Your task to perform on an android device: turn pop-ups on in chrome Image 0: 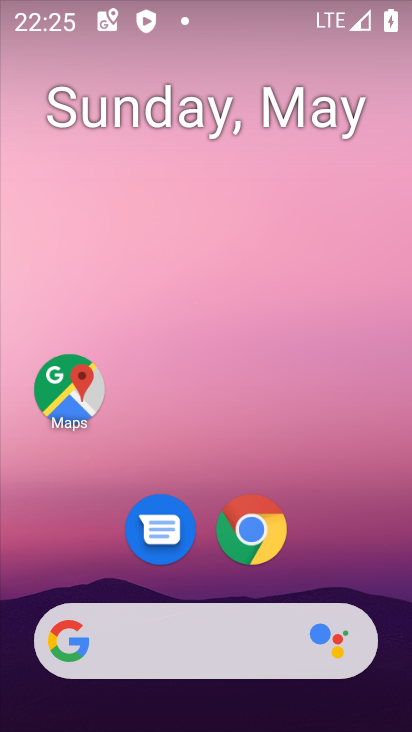
Step 0: click (306, 520)
Your task to perform on an android device: turn pop-ups on in chrome Image 1: 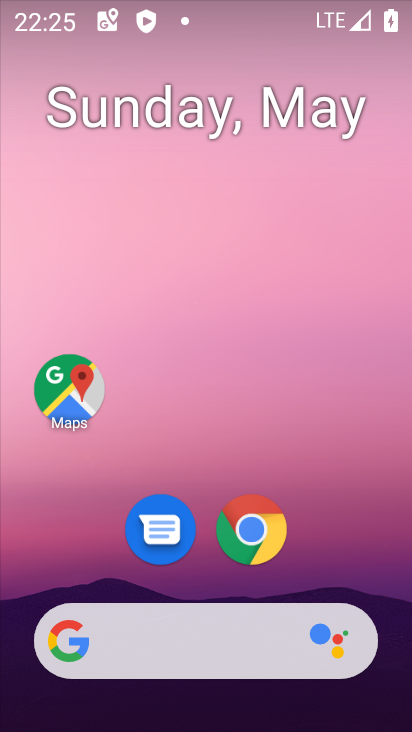
Step 1: click (241, 525)
Your task to perform on an android device: turn pop-ups on in chrome Image 2: 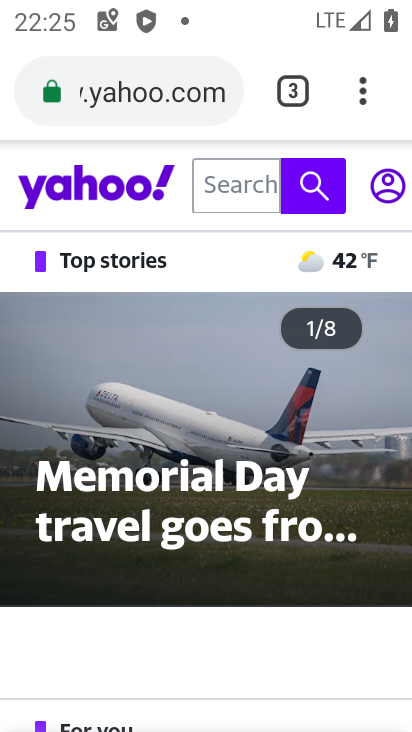
Step 2: click (371, 87)
Your task to perform on an android device: turn pop-ups on in chrome Image 3: 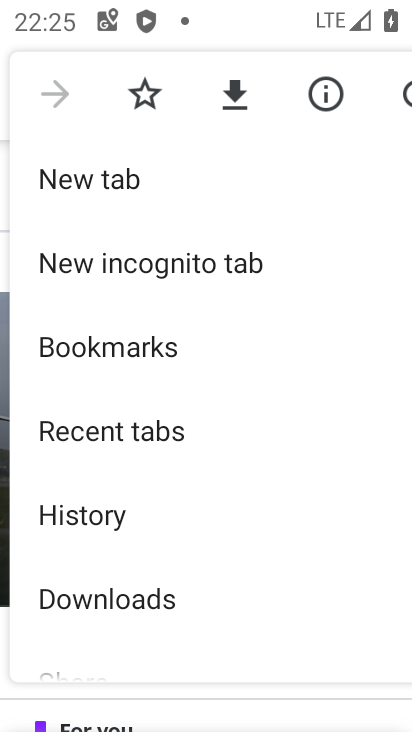
Step 3: drag from (216, 541) to (211, 327)
Your task to perform on an android device: turn pop-ups on in chrome Image 4: 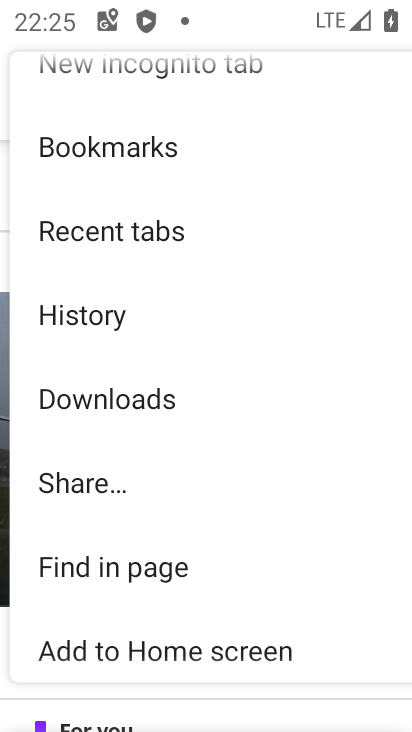
Step 4: drag from (183, 626) to (187, 286)
Your task to perform on an android device: turn pop-ups on in chrome Image 5: 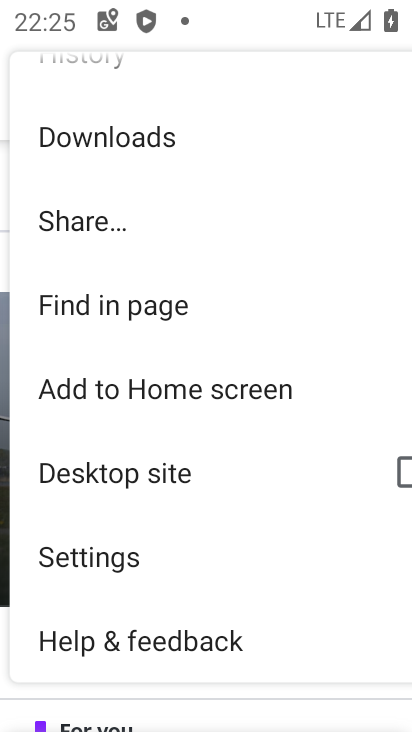
Step 5: click (171, 553)
Your task to perform on an android device: turn pop-ups on in chrome Image 6: 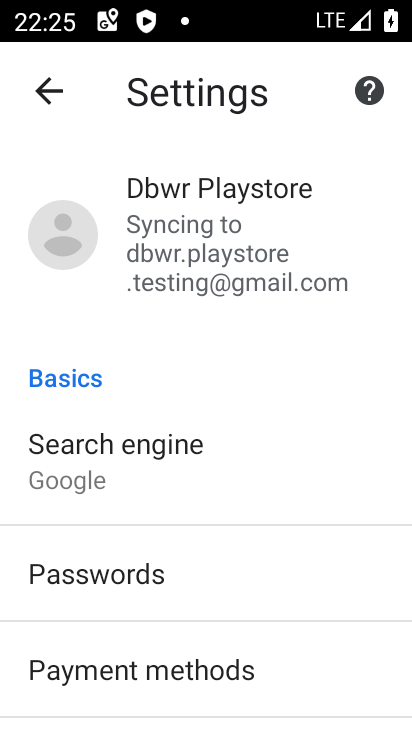
Step 6: drag from (209, 559) to (214, 199)
Your task to perform on an android device: turn pop-ups on in chrome Image 7: 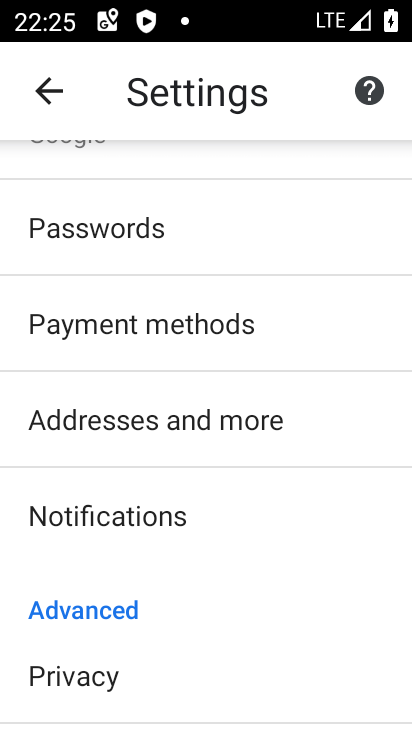
Step 7: drag from (170, 648) to (190, 307)
Your task to perform on an android device: turn pop-ups on in chrome Image 8: 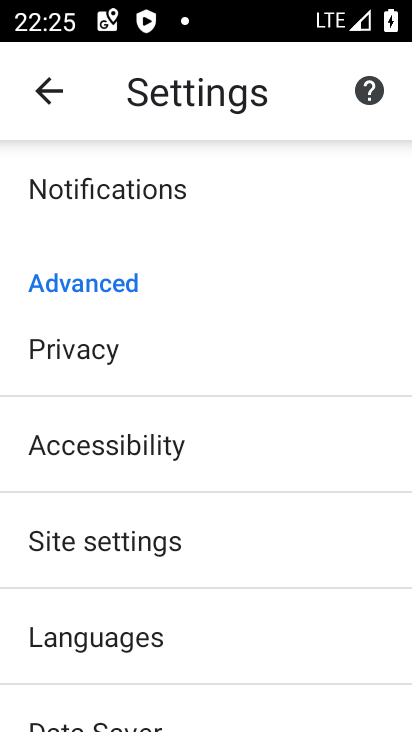
Step 8: drag from (160, 371) to (208, 89)
Your task to perform on an android device: turn pop-ups on in chrome Image 9: 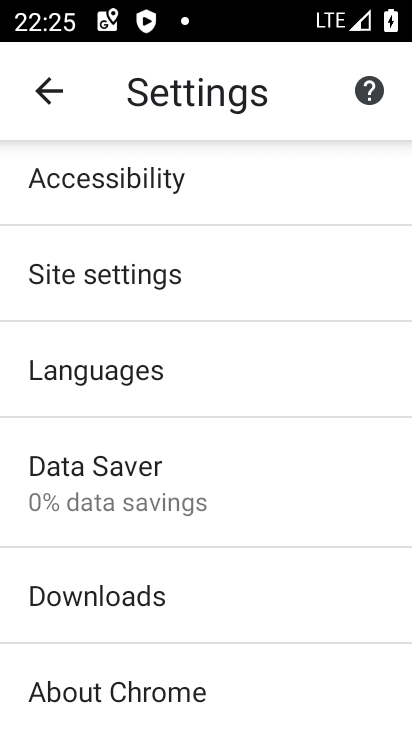
Step 9: click (152, 285)
Your task to perform on an android device: turn pop-ups on in chrome Image 10: 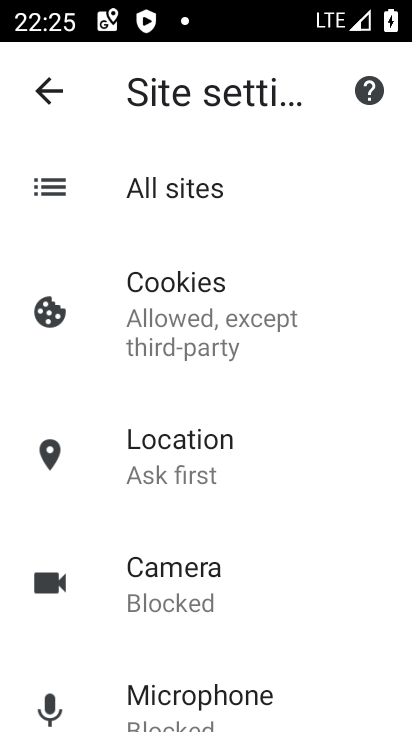
Step 10: drag from (169, 582) to (169, 111)
Your task to perform on an android device: turn pop-ups on in chrome Image 11: 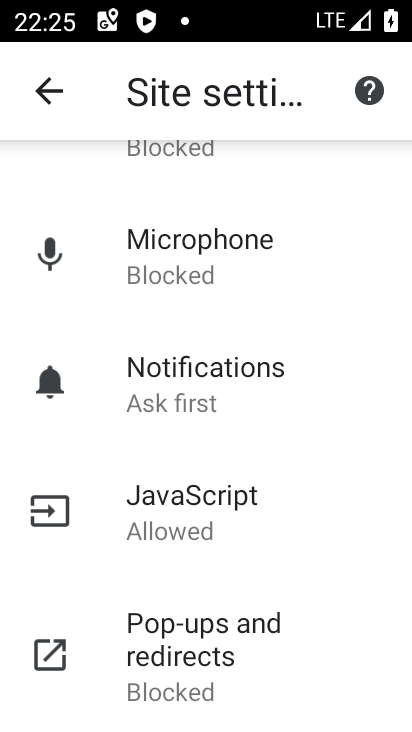
Step 11: click (220, 669)
Your task to perform on an android device: turn pop-ups on in chrome Image 12: 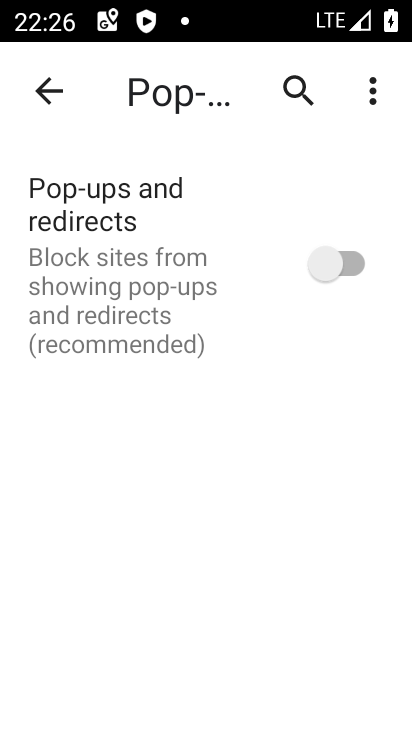
Step 12: click (347, 237)
Your task to perform on an android device: turn pop-ups on in chrome Image 13: 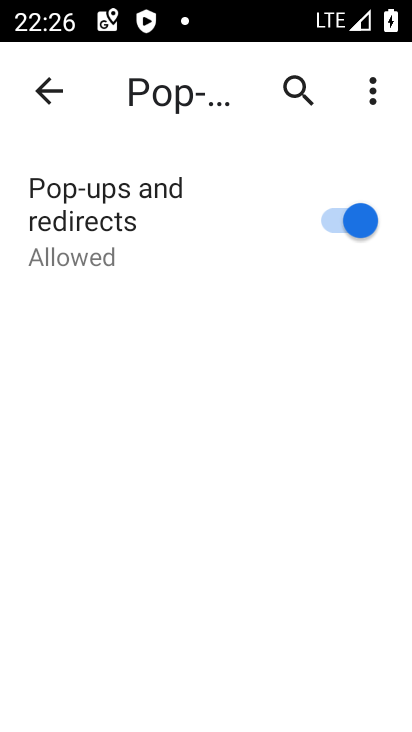
Step 13: task complete